Your task to perform on an android device: Go to display settings Image 0: 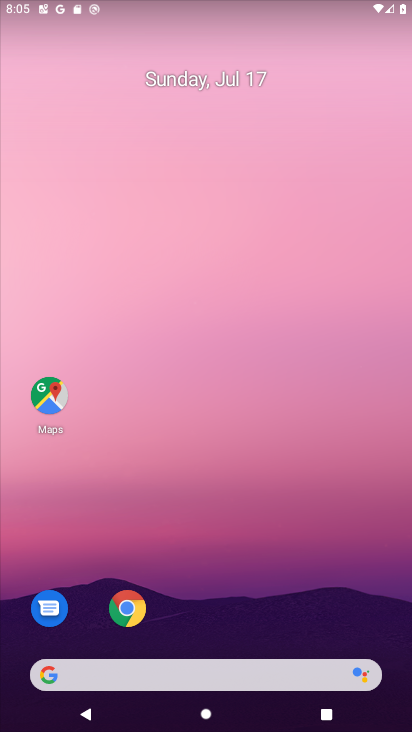
Step 0: drag from (175, 657) to (244, 178)
Your task to perform on an android device: Go to display settings Image 1: 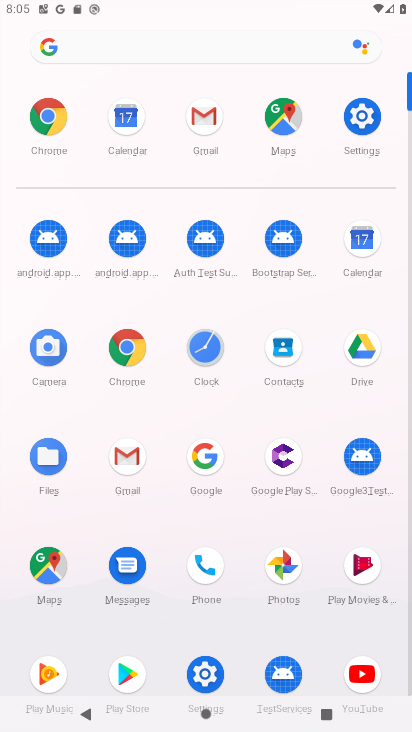
Step 1: click (355, 127)
Your task to perform on an android device: Go to display settings Image 2: 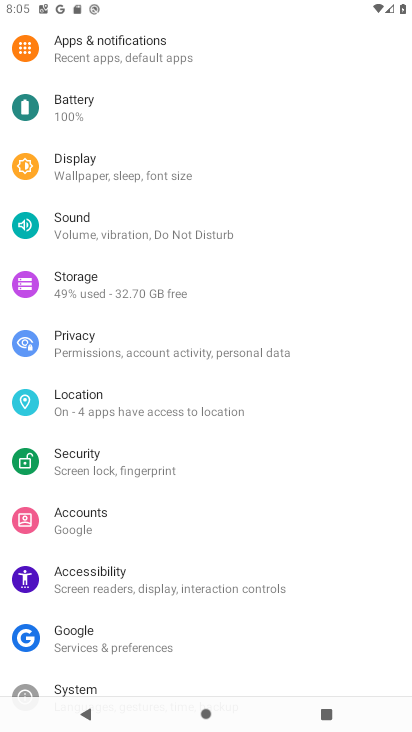
Step 2: click (81, 162)
Your task to perform on an android device: Go to display settings Image 3: 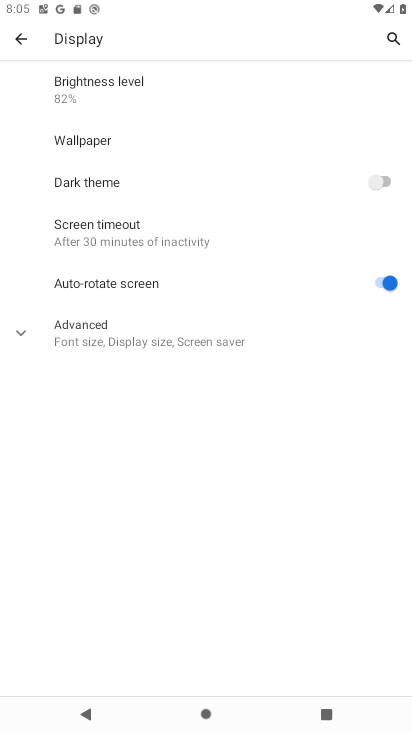
Step 3: click (98, 320)
Your task to perform on an android device: Go to display settings Image 4: 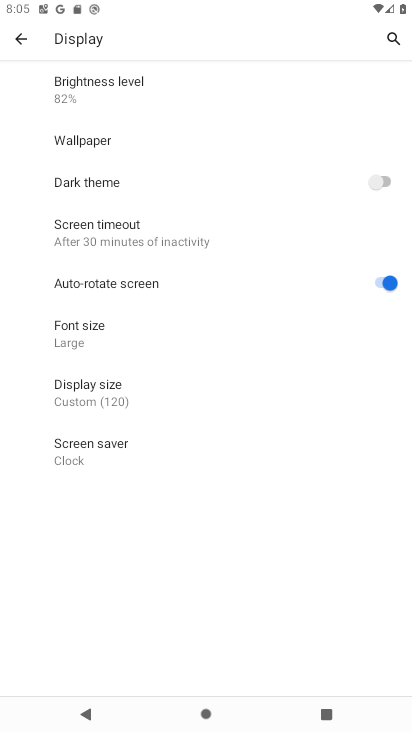
Step 4: task complete